Your task to perform on an android device: Go to eBay Image 0: 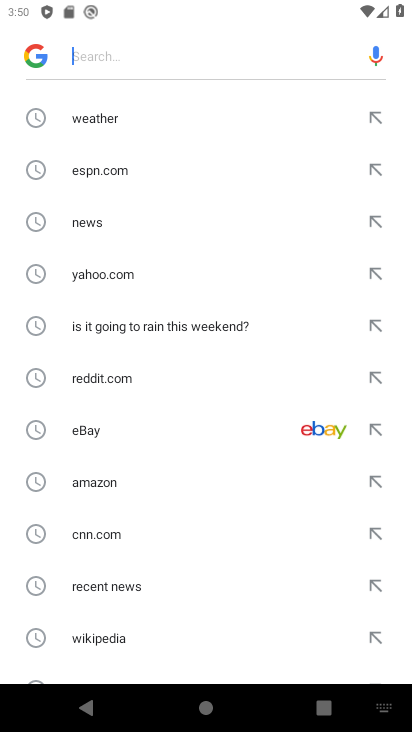
Step 0: press home button
Your task to perform on an android device: Go to eBay Image 1: 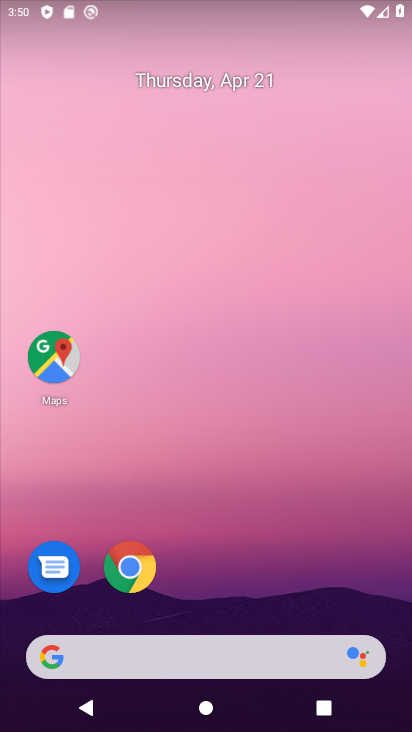
Step 1: drag from (262, 620) to (205, 150)
Your task to perform on an android device: Go to eBay Image 2: 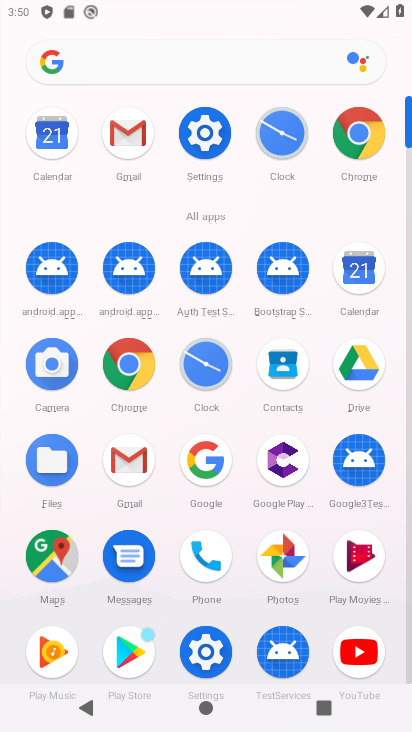
Step 2: click (133, 362)
Your task to perform on an android device: Go to eBay Image 3: 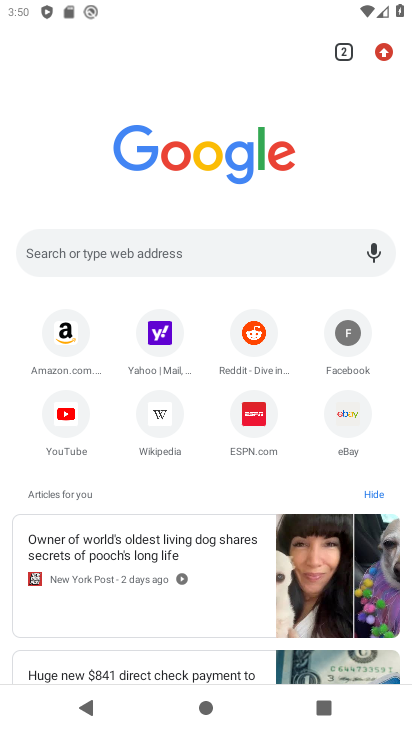
Step 3: click (174, 241)
Your task to perform on an android device: Go to eBay Image 4: 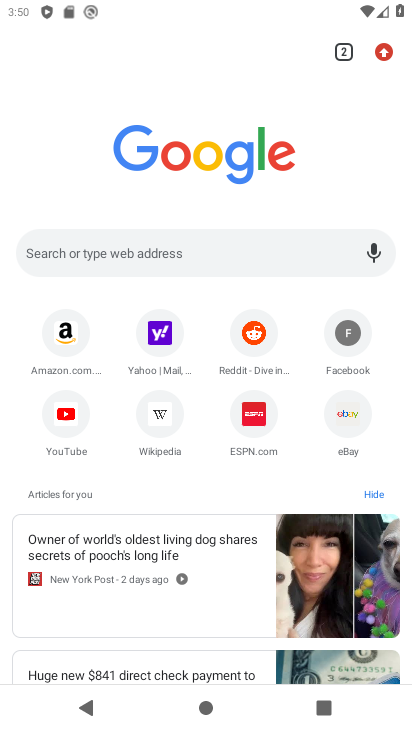
Step 4: click (174, 241)
Your task to perform on an android device: Go to eBay Image 5: 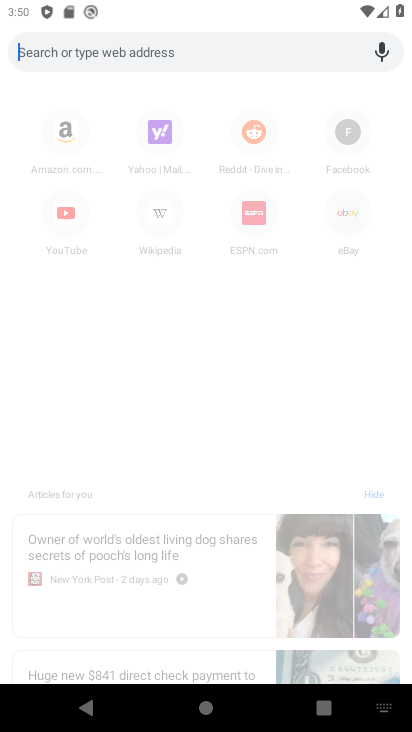
Step 5: type "ebay"
Your task to perform on an android device: Go to eBay Image 6: 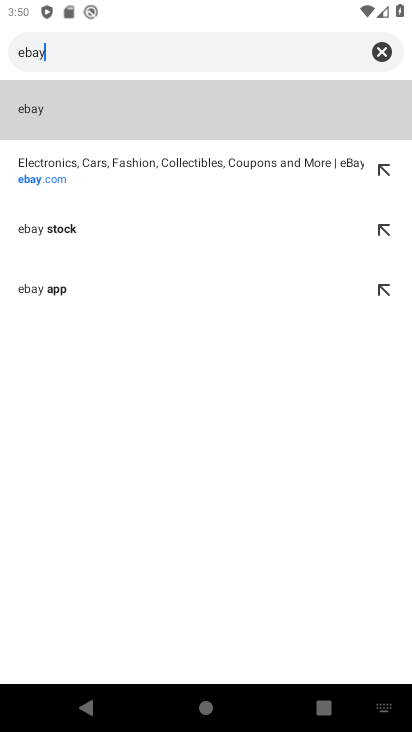
Step 6: click (171, 167)
Your task to perform on an android device: Go to eBay Image 7: 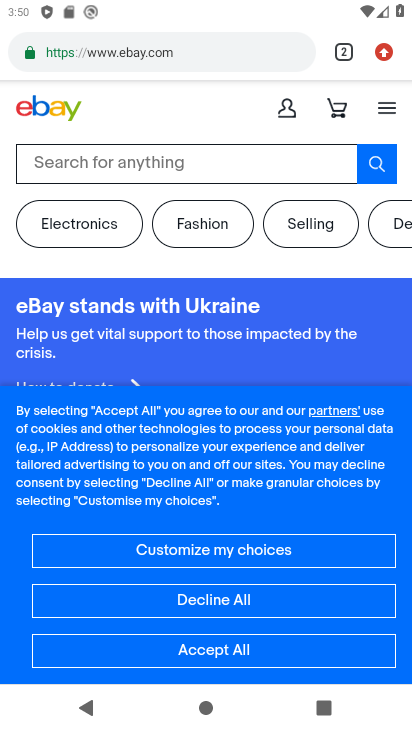
Step 7: task complete